Your task to perform on an android device: star an email in the gmail app Image 0: 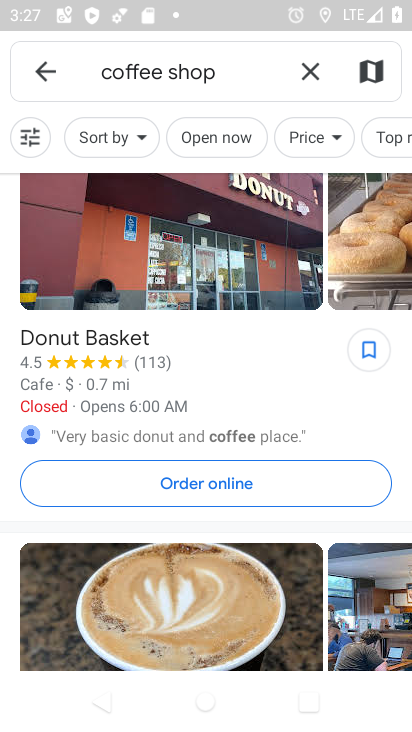
Step 0: task impossible